Your task to perform on an android device: turn off location history Image 0: 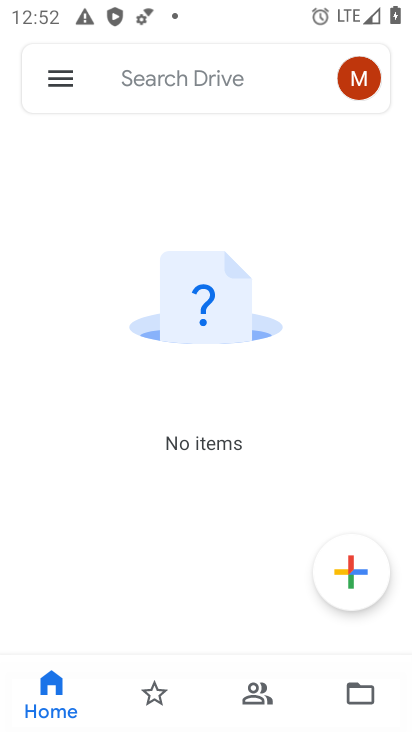
Step 0: press home button
Your task to perform on an android device: turn off location history Image 1: 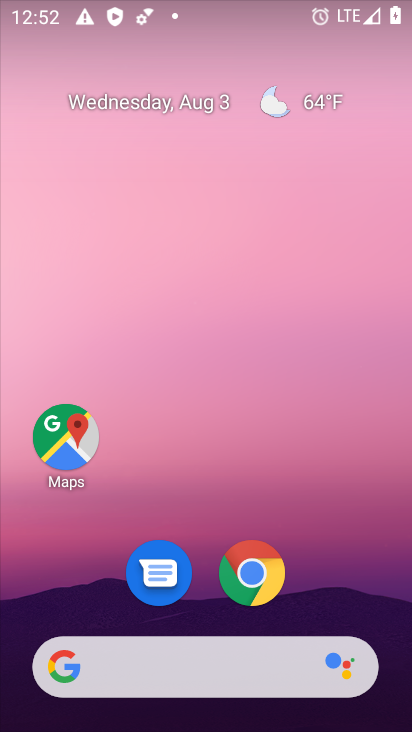
Step 1: drag from (205, 628) to (227, 196)
Your task to perform on an android device: turn off location history Image 2: 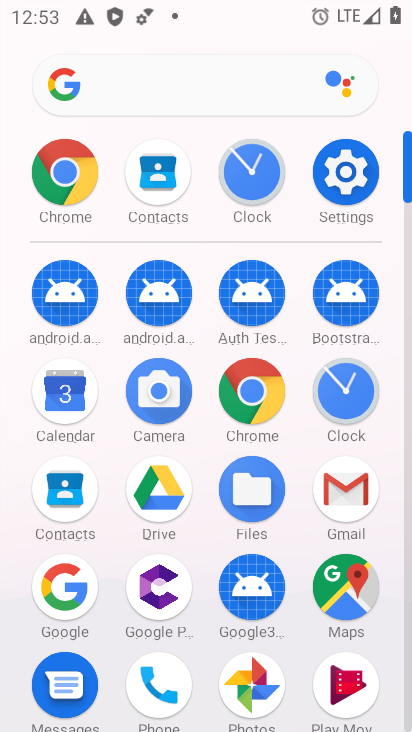
Step 2: click (356, 181)
Your task to perform on an android device: turn off location history Image 3: 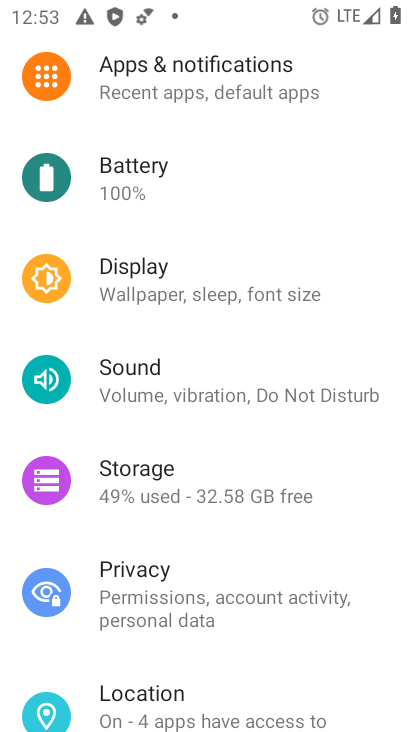
Step 3: click (203, 704)
Your task to perform on an android device: turn off location history Image 4: 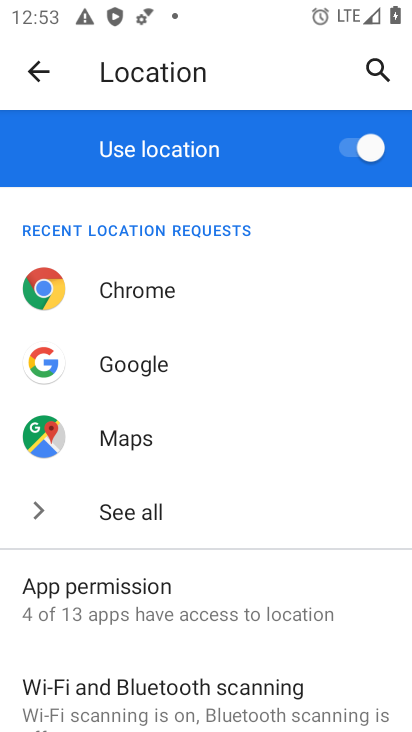
Step 4: drag from (206, 557) to (279, 223)
Your task to perform on an android device: turn off location history Image 5: 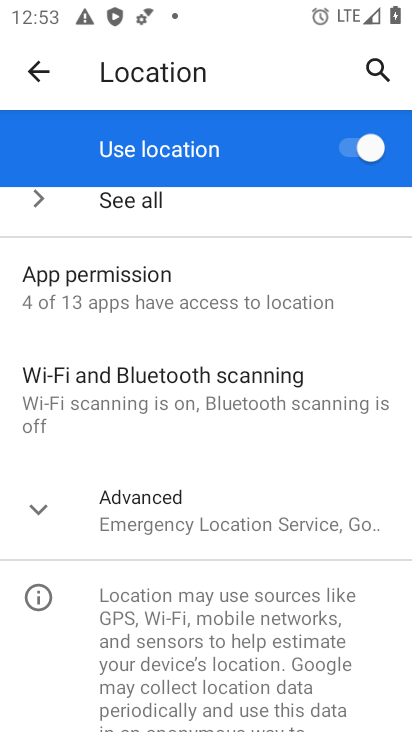
Step 5: click (162, 523)
Your task to perform on an android device: turn off location history Image 6: 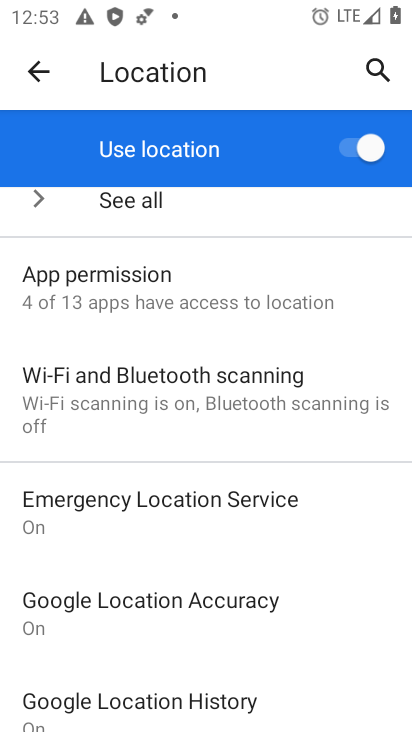
Step 6: click (217, 700)
Your task to perform on an android device: turn off location history Image 7: 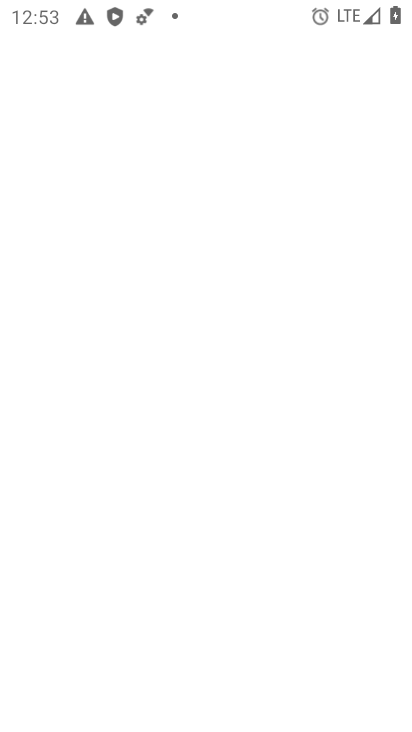
Step 7: drag from (230, 421) to (236, 278)
Your task to perform on an android device: turn off location history Image 8: 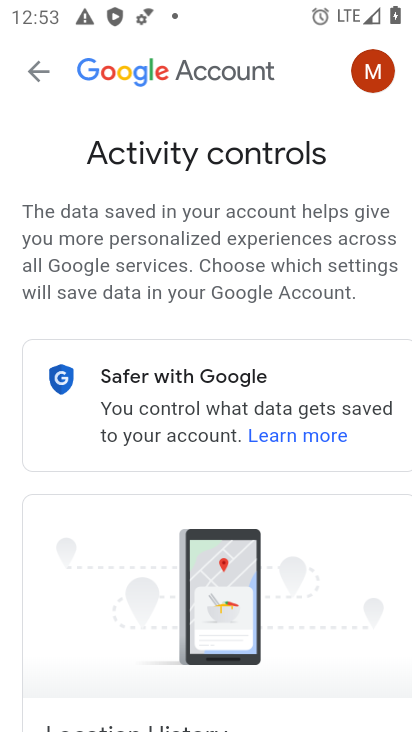
Step 8: drag from (265, 572) to (189, 207)
Your task to perform on an android device: turn off location history Image 9: 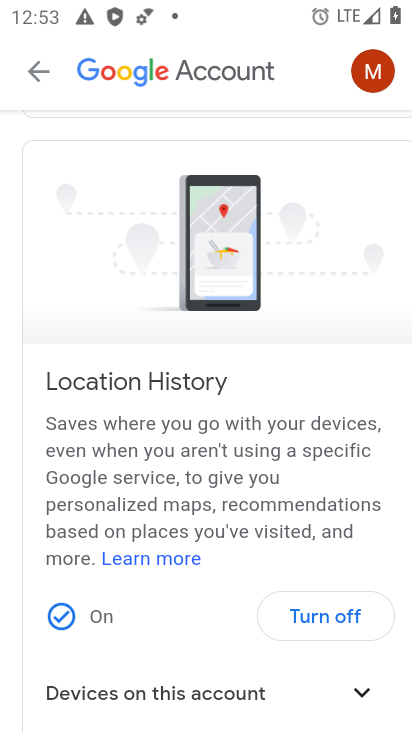
Step 9: click (302, 613)
Your task to perform on an android device: turn off location history Image 10: 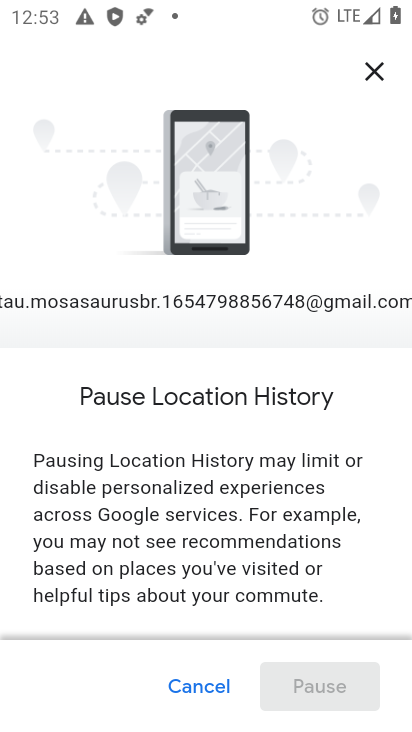
Step 10: drag from (302, 609) to (291, 123)
Your task to perform on an android device: turn off location history Image 11: 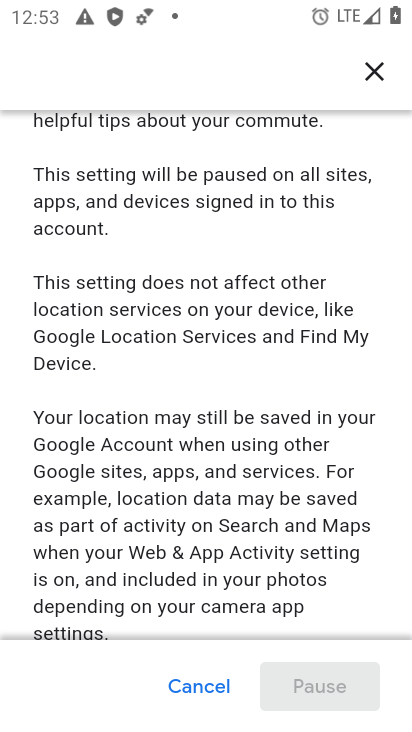
Step 11: drag from (186, 500) to (237, 69)
Your task to perform on an android device: turn off location history Image 12: 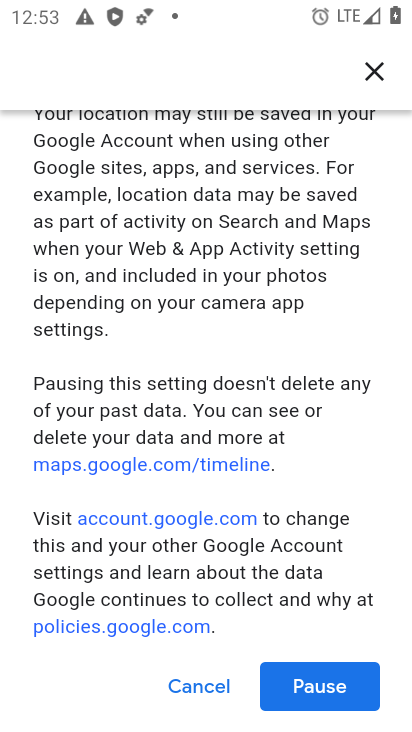
Step 12: click (313, 690)
Your task to perform on an android device: turn off location history Image 13: 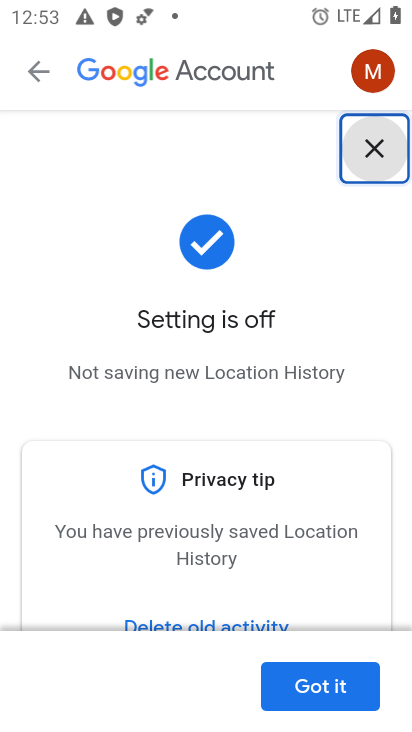
Step 13: click (332, 689)
Your task to perform on an android device: turn off location history Image 14: 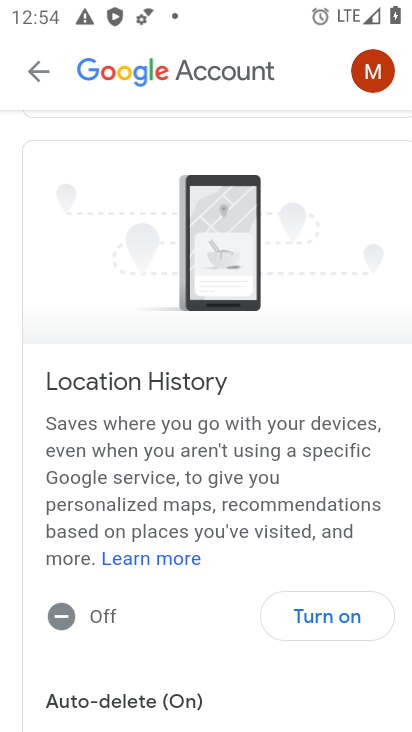
Step 14: task complete